Your task to perform on an android device: refresh tabs in the chrome app Image 0: 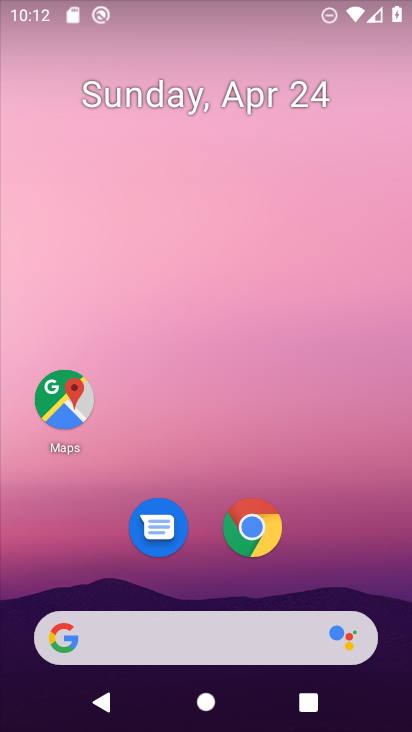
Step 0: drag from (386, 630) to (300, 34)
Your task to perform on an android device: refresh tabs in the chrome app Image 1: 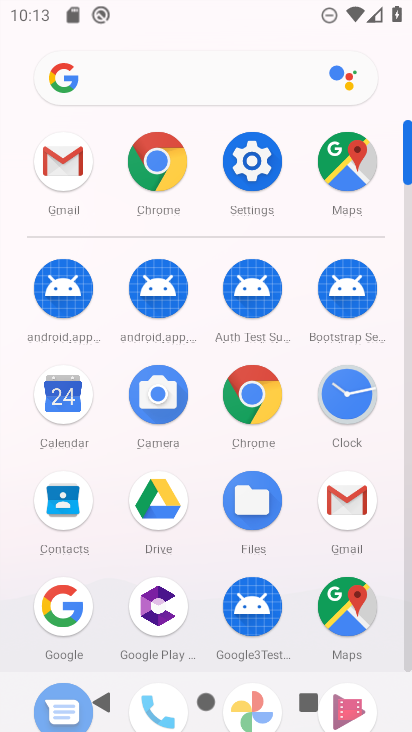
Step 1: click (130, 164)
Your task to perform on an android device: refresh tabs in the chrome app Image 2: 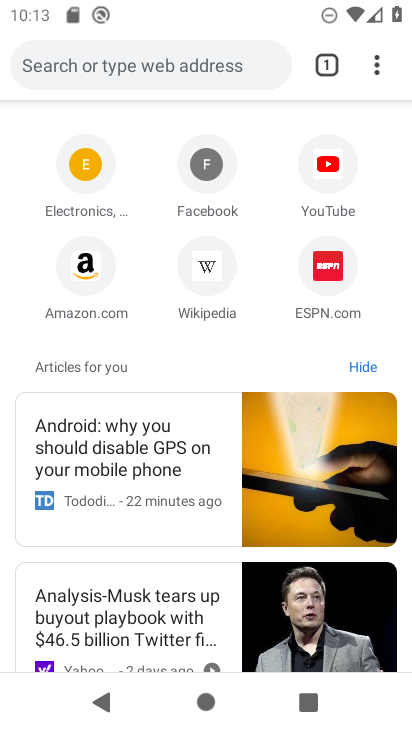
Step 2: click (381, 65)
Your task to perform on an android device: refresh tabs in the chrome app Image 3: 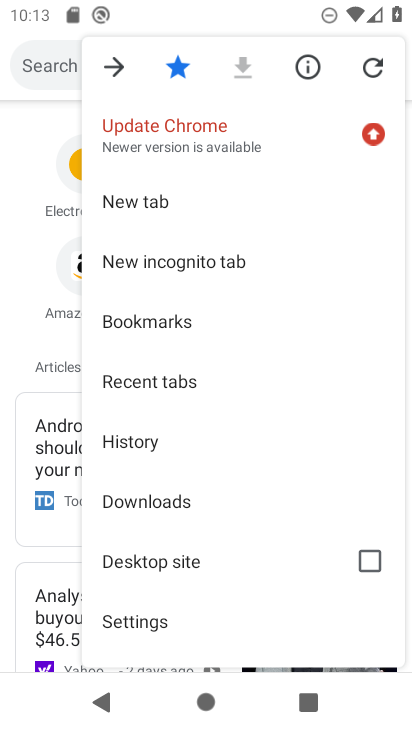
Step 3: click (378, 65)
Your task to perform on an android device: refresh tabs in the chrome app Image 4: 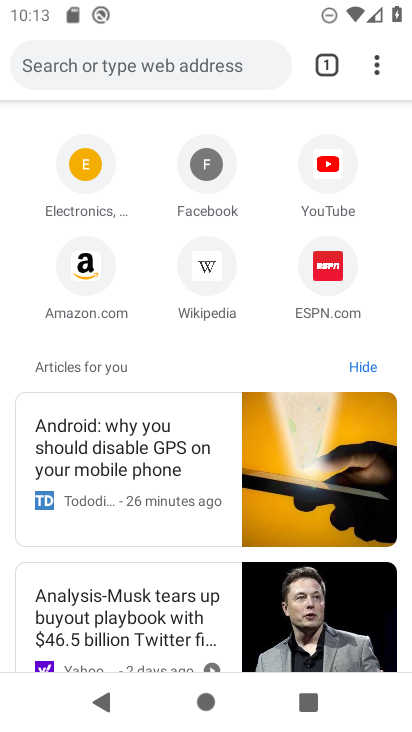
Step 4: task complete